Your task to perform on an android device: snooze an email in the gmail app Image 0: 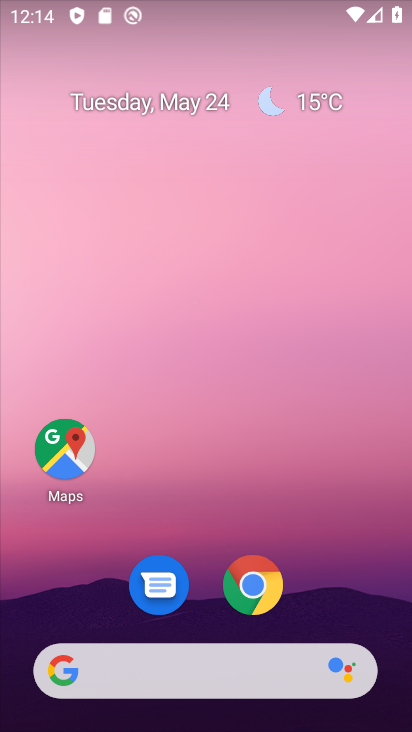
Step 0: drag from (226, 505) to (257, 46)
Your task to perform on an android device: snooze an email in the gmail app Image 1: 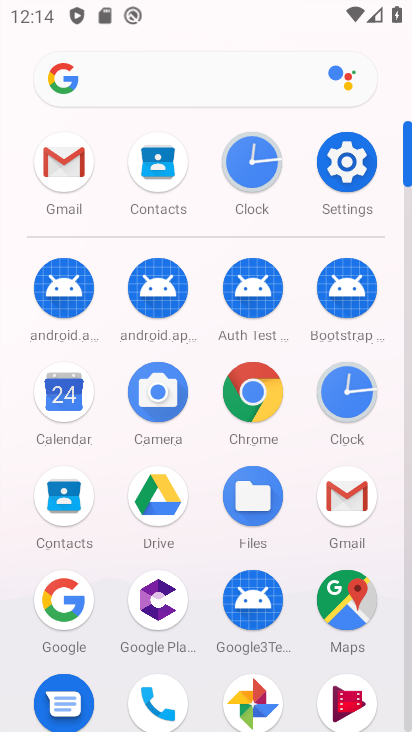
Step 1: click (71, 167)
Your task to perform on an android device: snooze an email in the gmail app Image 2: 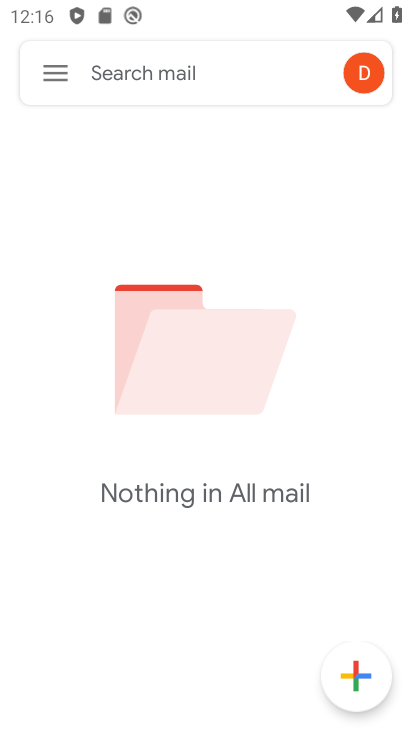
Step 2: task complete